Your task to perform on an android device: Open Maps and search for coffee Image 0: 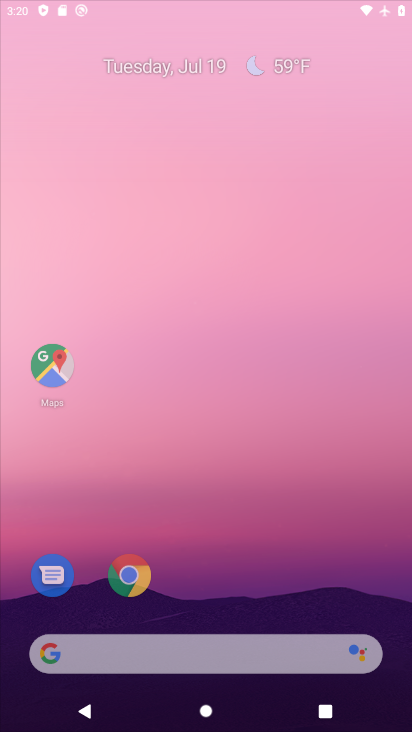
Step 0: press home button
Your task to perform on an android device: Open Maps and search for coffee Image 1: 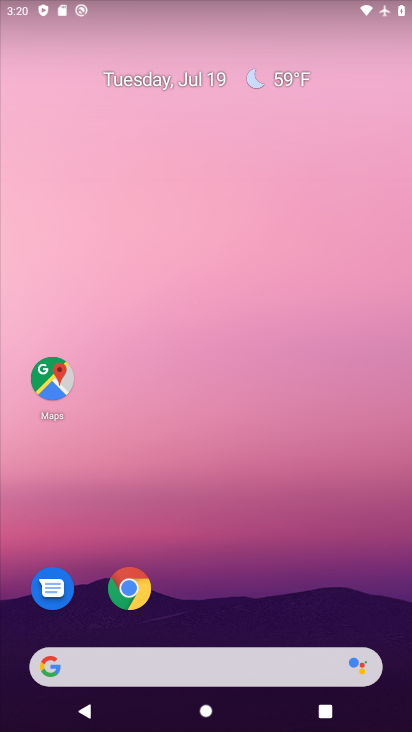
Step 1: drag from (234, 631) to (202, 26)
Your task to perform on an android device: Open Maps and search for coffee Image 2: 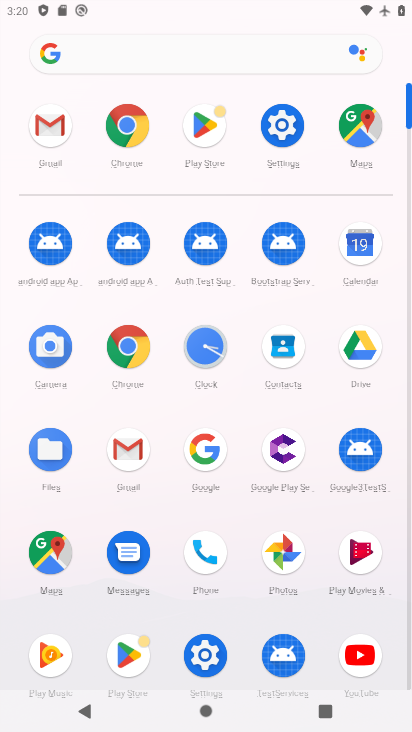
Step 2: click (371, 122)
Your task to perform on an android device: Open Maps and search for coffee Image 3: 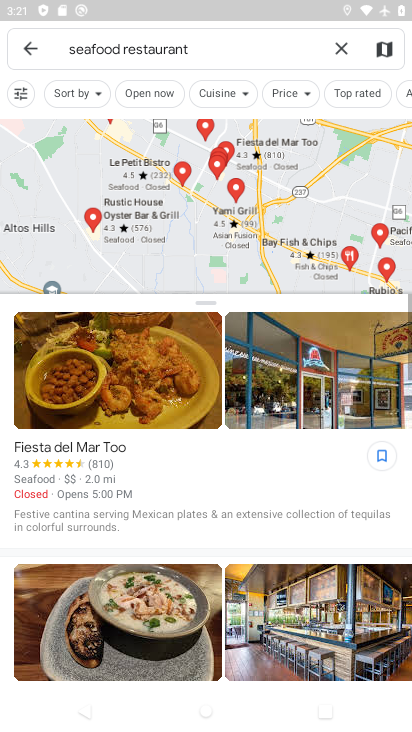
Step 3: click (35, 47)
Your task to perform on an android device: Open Maps and search for coffee Image 4: 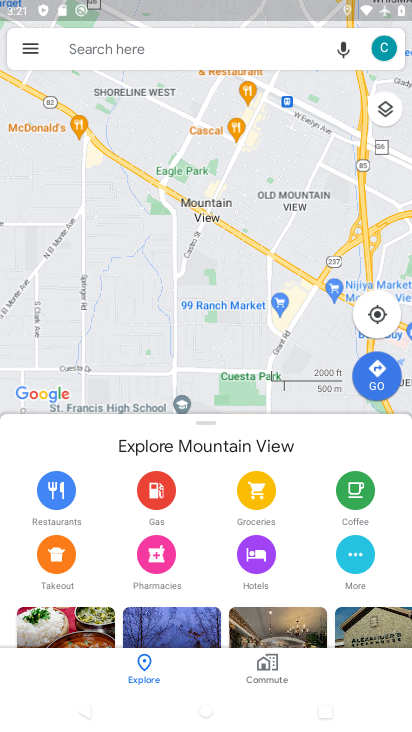
Step 4: click (147, 50)
Your task to perform on an android device: Open Maps and search for coffee Image 5: 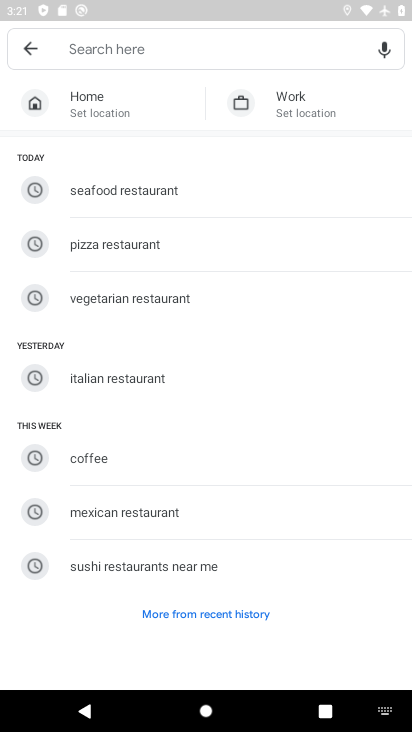
Step 5: click (86, 465)
Your task to perform on an android device: Open Maps and search for coffee Image 6: 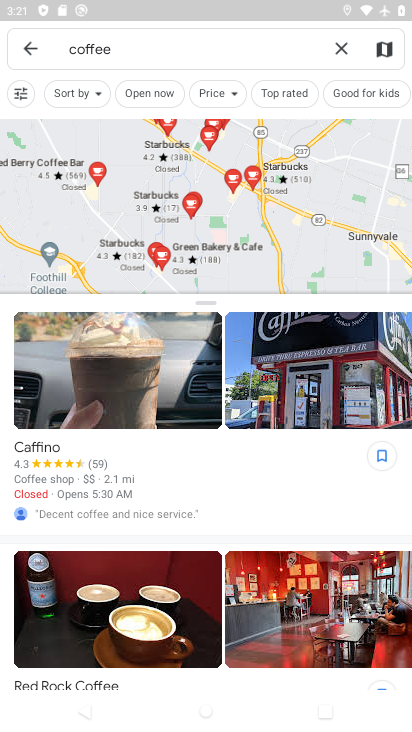
Step 6: task complete